Your task to perform on an android device: turn off sleep mode Image 0: 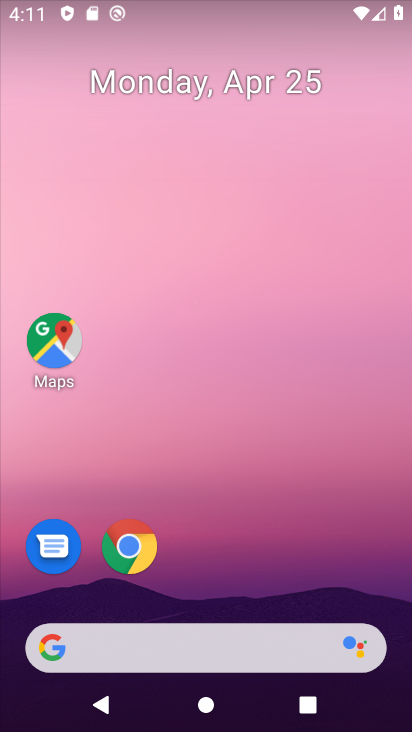
Step 0: drag from (209, 611) to (291, 111)
Your task to perform on an android device: turn off sleep mode Image 1: 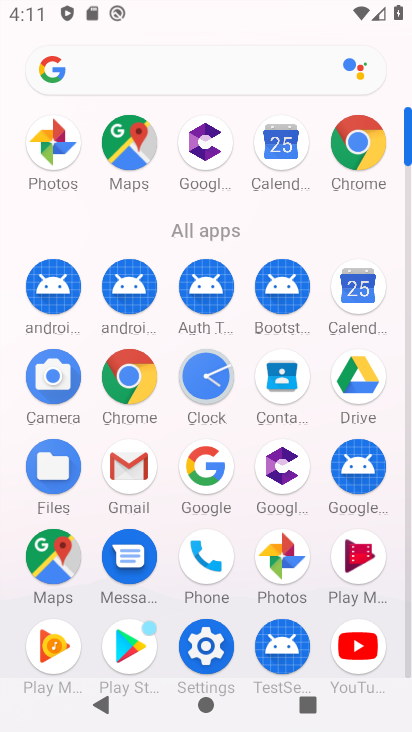
Step 1: click (200, 650)
Your task to perform on an android device: turn off sleep mode Image 2: 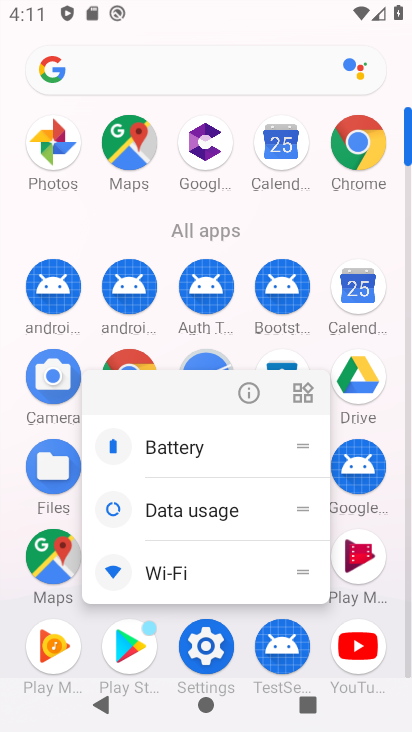
Step 2: click (203, 650)
Your task to perform on an android device: turn off sleep mode Image 3: 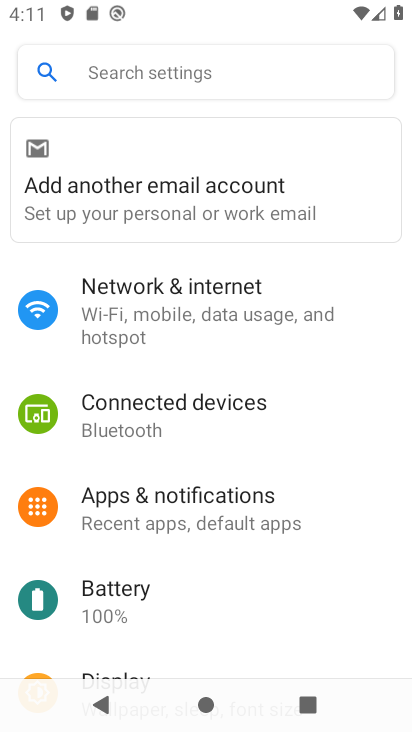
Step 3: task complete